Your task to perform on an android device: find which apps use the phone's location Image 0: 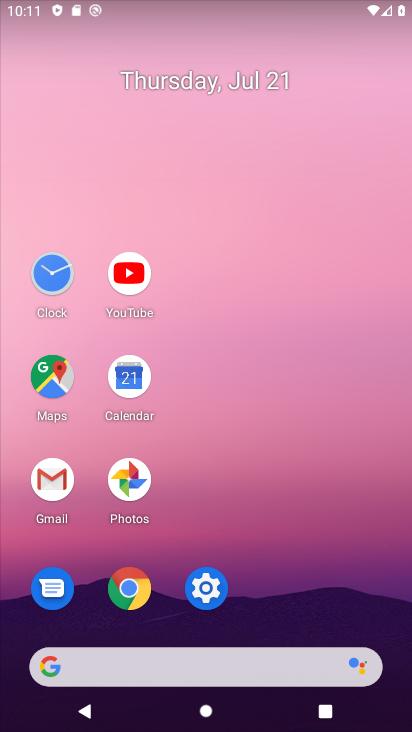
Step 0: click (205, 587)
Your task to perform on an android device: find which apps use the phone's location Image 1: 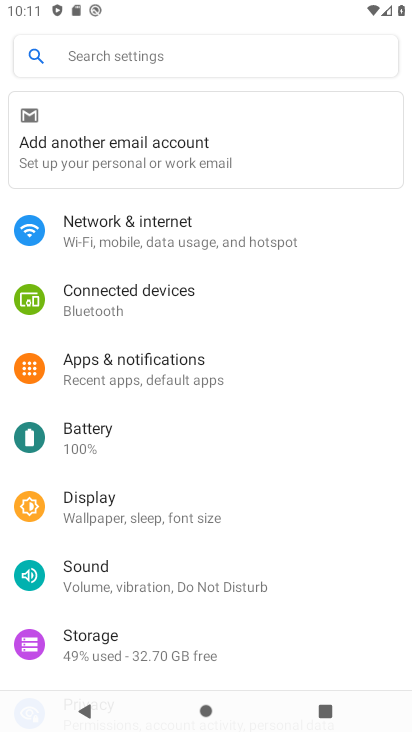
Step 1: drag from (250, 557) to (257, 176)
Your task to perform on an android device: find which apps use the phone's location Image 2: 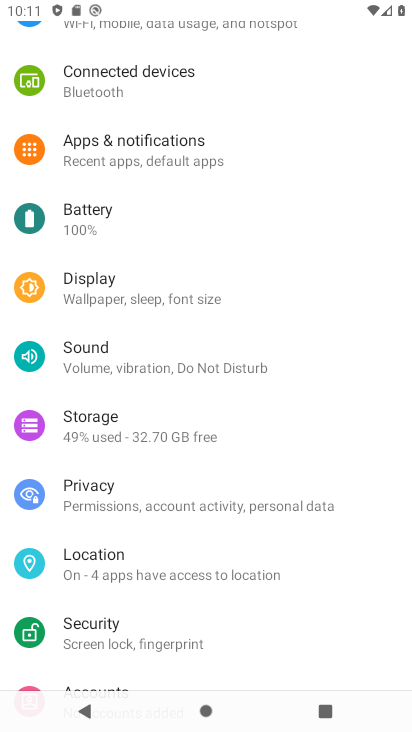
Step 2: click (100, 553)
Your task to perform on an android device: find which apps use the phone's location Image 3: 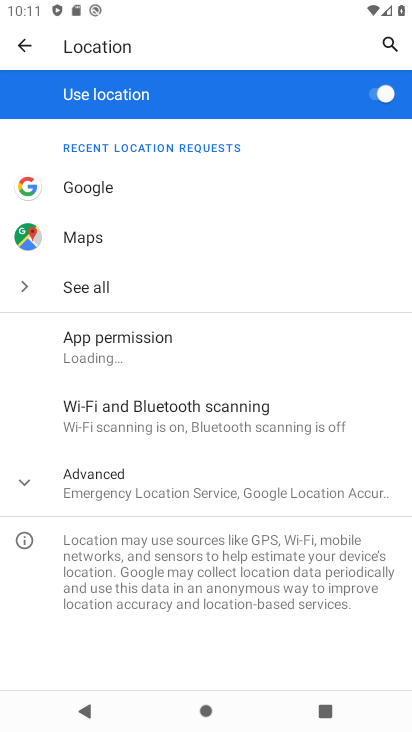
Step 3: click (73, 286)
Your task to perform on an android device: find which apps use the phone's location Image 4: 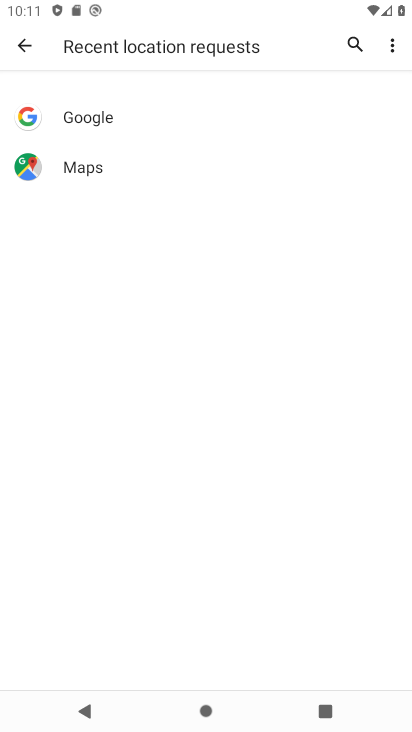
Step 4: task complete